Your task to perform on an android device: change keyboard looks Image 0: 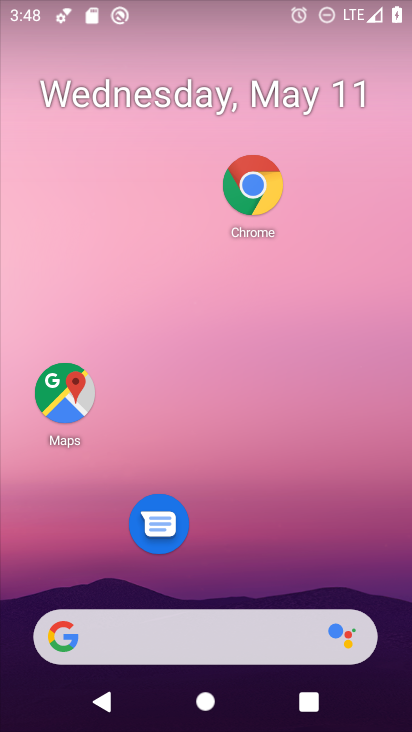
Step 0: drag from (352, 475) to (380, 28)
Your task to perform on an android device: change keyboard looks Image 1: 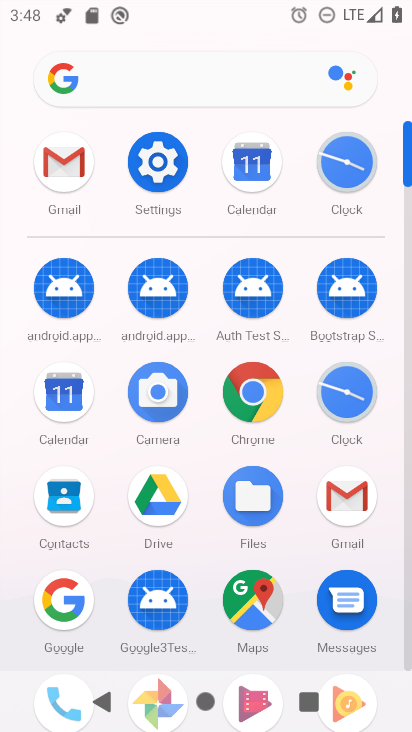
Step 1: click (165, 157)
Your task to perform on an android device: change keyboard looks Image 2: 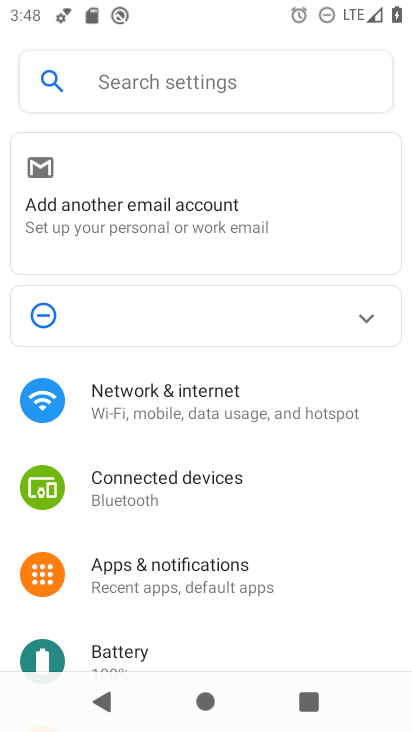
Step 2: drag from (262, 528) to (256, 43)
Your task to perform on an android device: change keyboard looks Image 3: 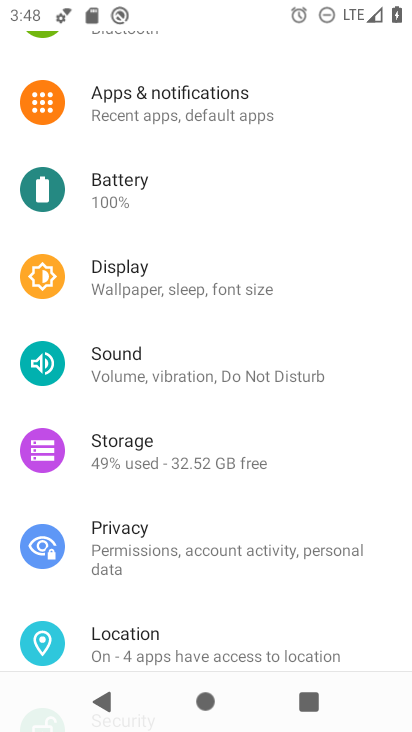
Step 3: drag from (203, 604) to (219, 39)
Your task to perform on an android device: change keyboard looks Image 4: 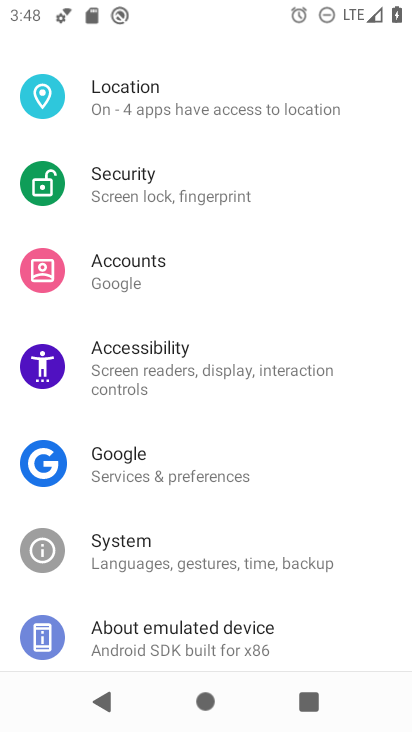
Step 4: click (162, 548)
Your task to perform on an android device: change keyboard looks Image 5: 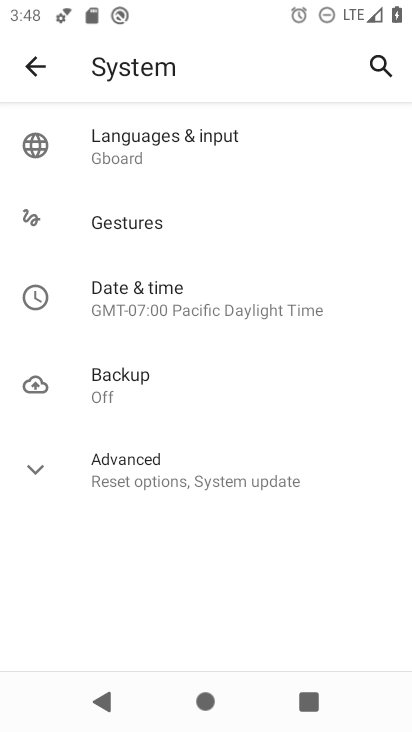
Step 5: click (158, 140)
Your task to perform on an android device: change keyboard looks Image 6: 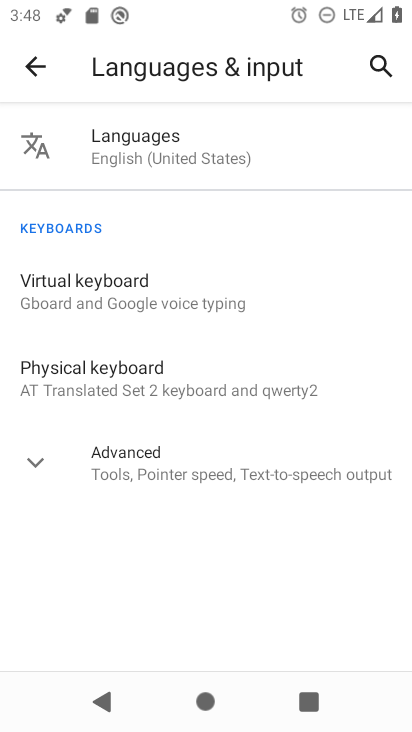
Step 6: click (113, 288)
Your task to perform on an android device: change keyboard looks Image 7: 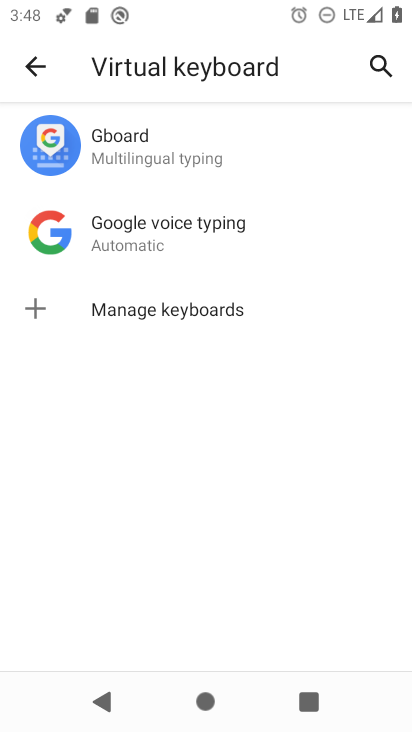
Step 7: click (155, 146)
Your task to perform on an android device: change keyboard looks Image 8: 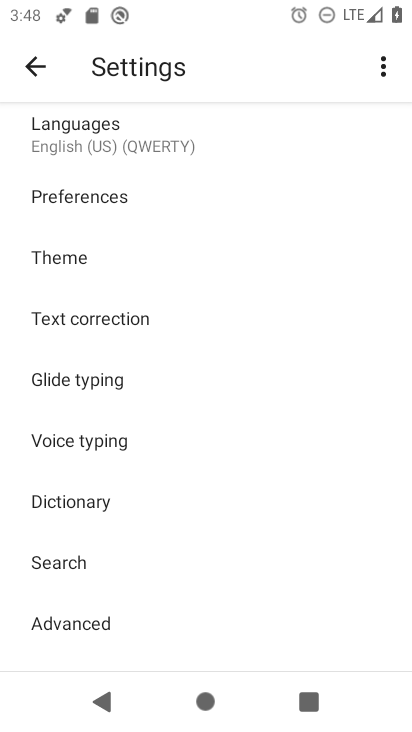
Step 8: click (92, 259)
Your task to perform on an android device: change keyboard looks Image 9: 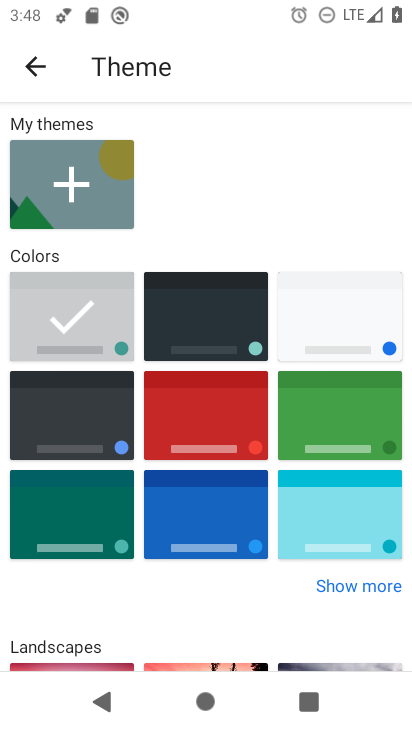
Step 9: click (208, 315)
Your task to perform on an android device: change keyboard looks Image 10: 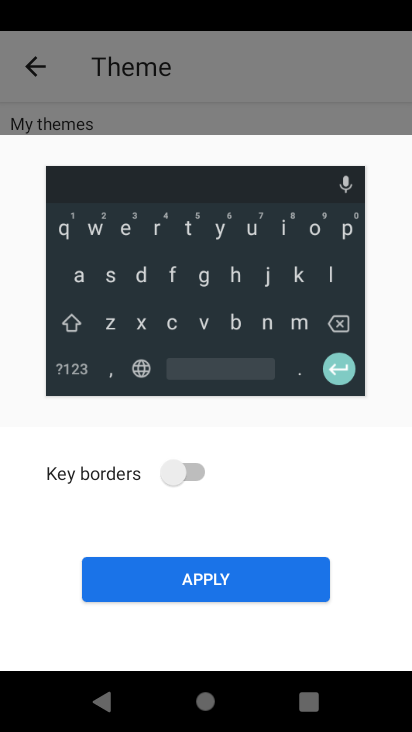
Step 10: click (195, 473)
Your task to perform on an android device: change keyboard looks Image 11: 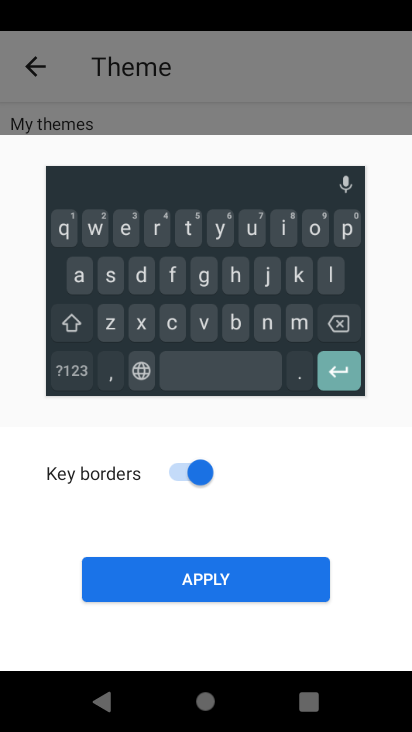
Step 11: click (250, 582)
Your task to perform on an android device: change keyboard looks Image 12: 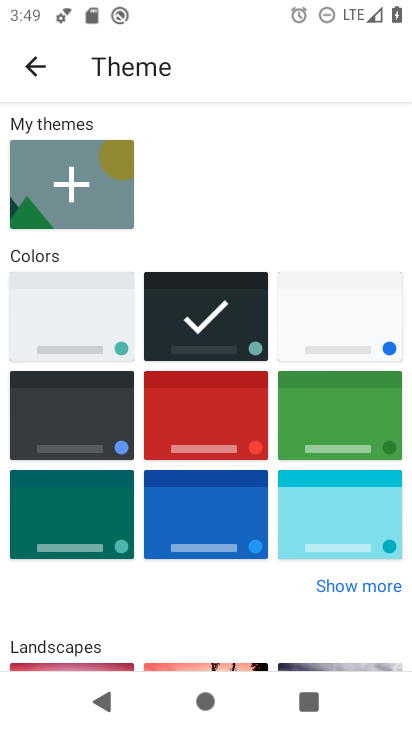
Step 12: task complete